Your task to perform on an android device: turn off translation in the chrome app Image 0: 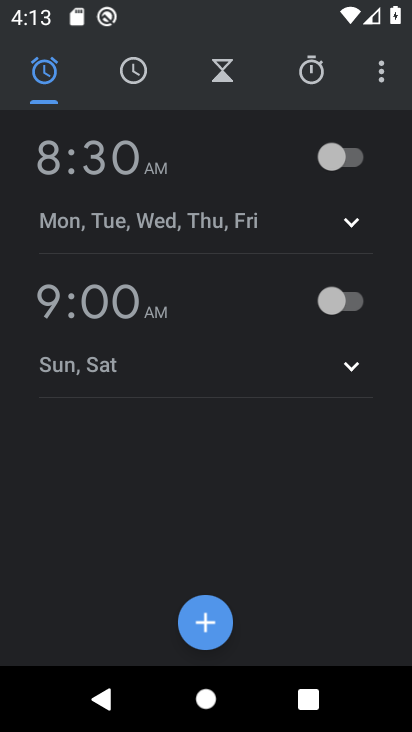
Step 0: press back button
Your task to perform on an android device: turn off translation in the chrome app Image 1: 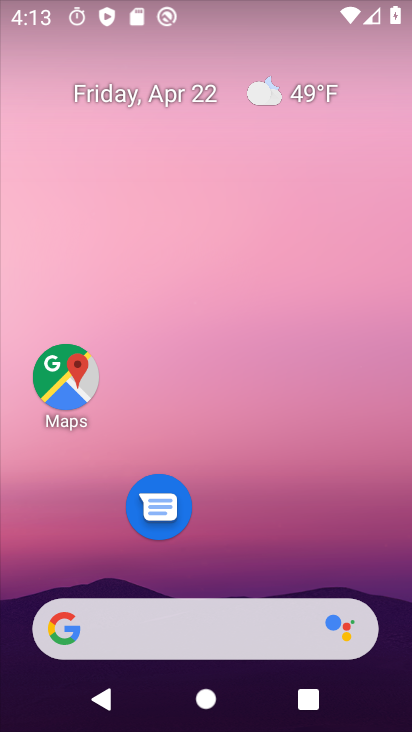
Step 1: drag from (249, 459) to (273, 90)
Your task to perform on an android device: turn off translation in the chrome app Image 2: 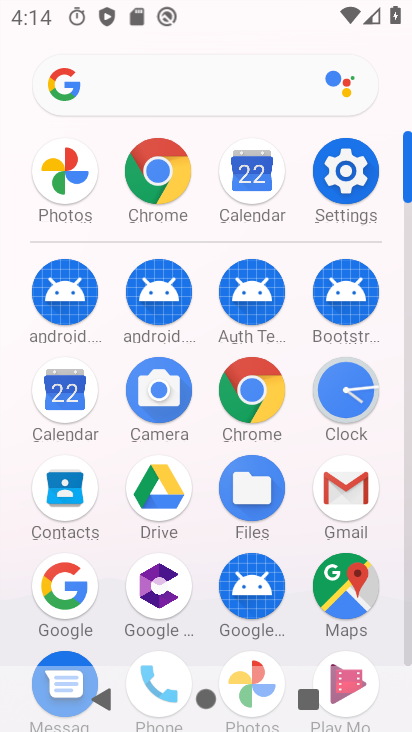
Step 2: click (161, 188)
Your task to perform on an android device: turn off translation in the chrome app Image 3: 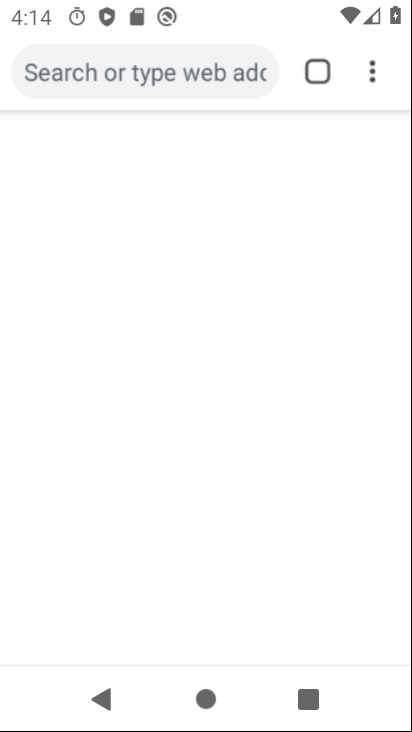
Step 3: click (367, 68)
Your task to perform on an android device: turn off translation in the chrome app Image 4: 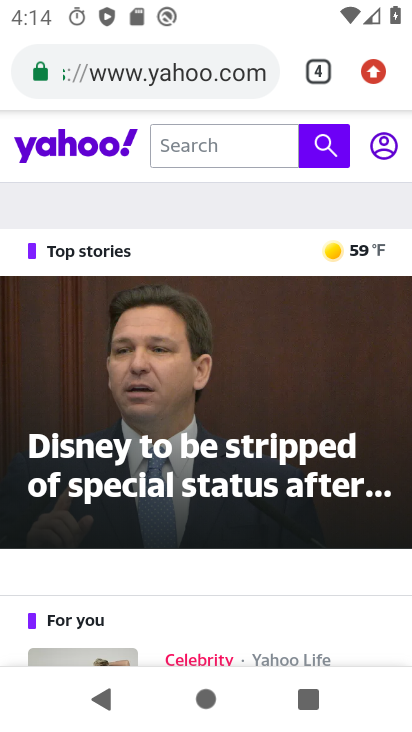
Step 4: drag from (372, 61) to (204, 487)
Your task to perform on an android device: turn off translation in the chrome app Image 5: 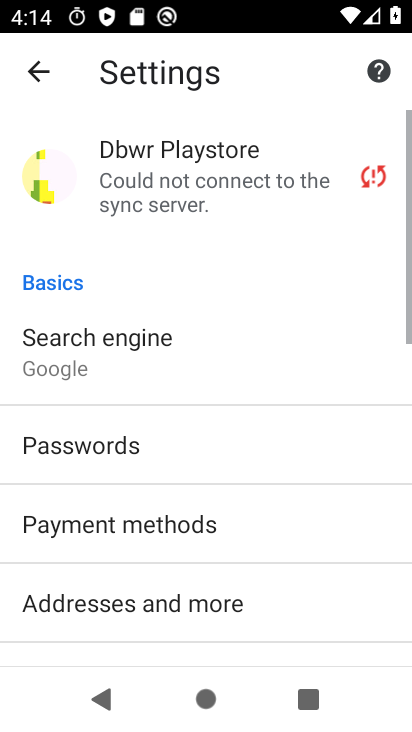
Step 5: drag from (144, 573) to (265, 77)
Your task to perform on an android device: turn off translation in the chrome app Image 6: 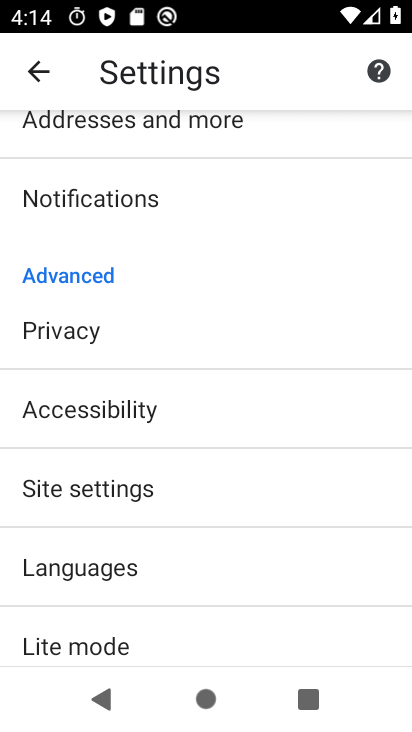
Step 6: click (81, 580)
Your task to perform on an android device: turn off translation in the chrome app Image 7: 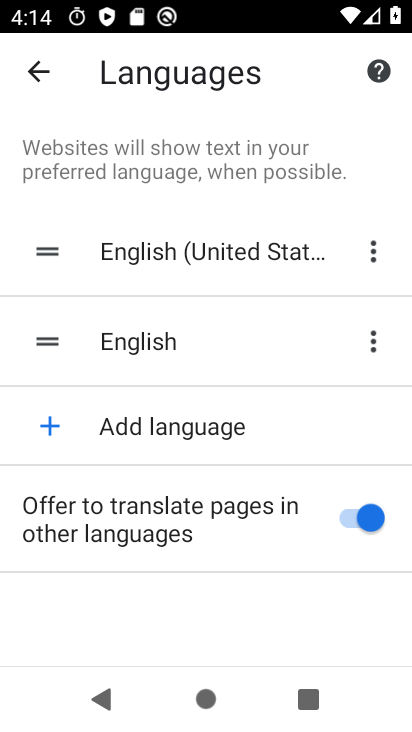
Step 7: click (366, 511)
Your task to perform on an android device: turn off translation in the chrome app Image 8: 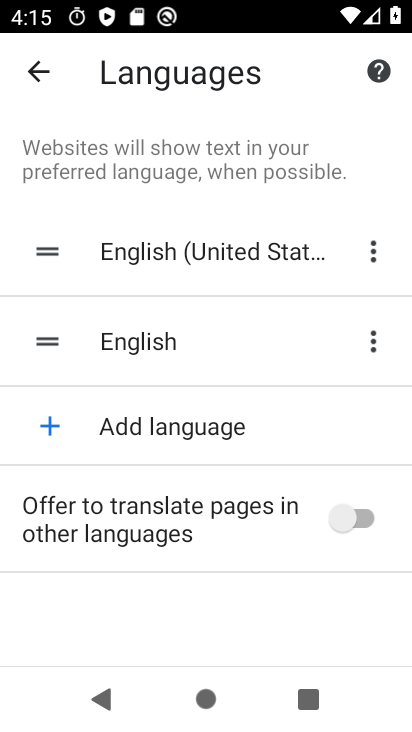
Step 8: task complete